Your task to perform on an android device: open a bookmark in the chrome app Image 0: 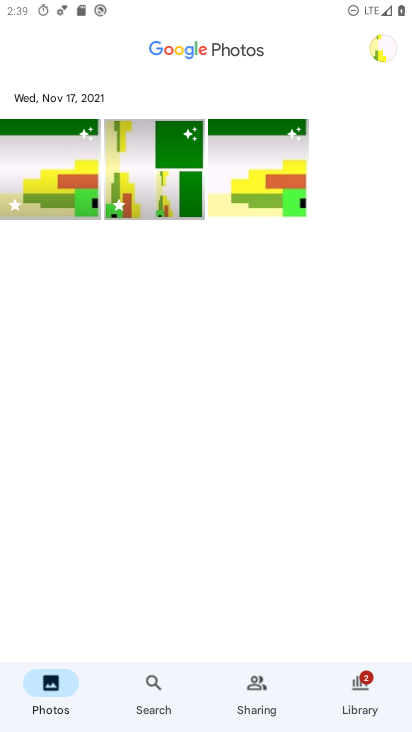
Step 0: drag from (227, 507) to (283, 145)
Your task to perform on an android device: open a bookmark in the chrome app Image 1: 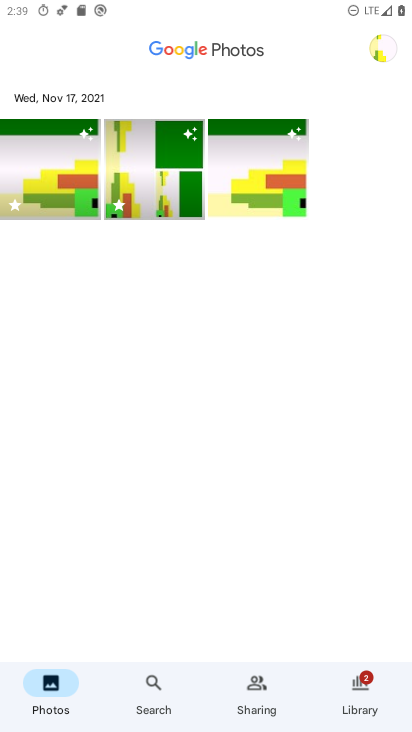
Step 1: press home button
Your task to perform on an android device: open a bookmark in the chrome app Image 2: 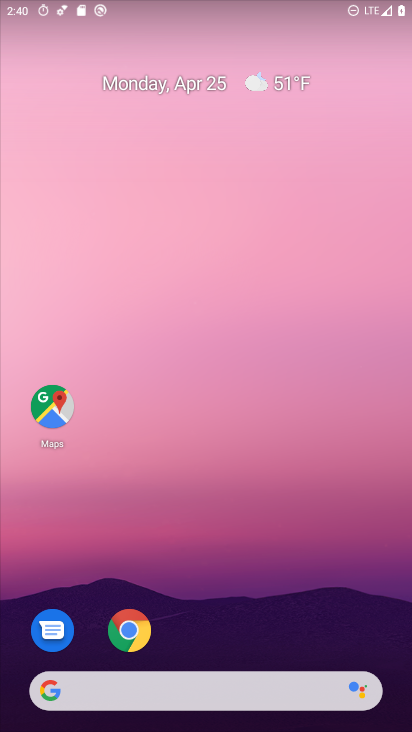
Step 2: drag from (189, 636) to (228, 239)
Your task to perform on an android device: open a bookmark in the chrome app Image 3: 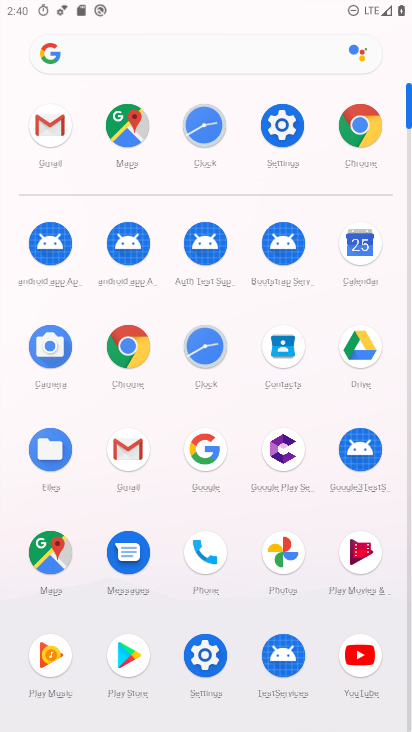
Step 3: click (116, 355)
Your task to perform on an android device: open a bookmark in the chrome app Image 4: 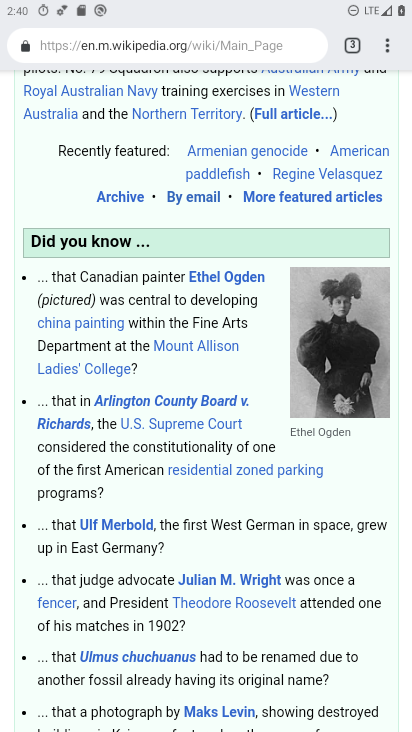
Step 4: drag from (246, 551) to (303, 73)
Your task to perform on an android device: open a bookmark in the chrome app Image 5: 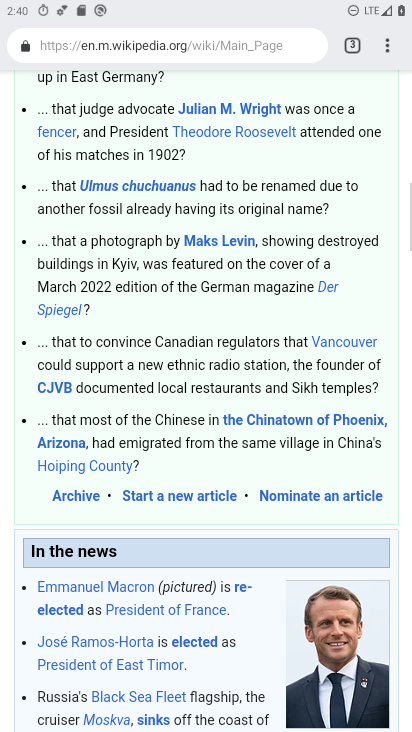
Step 5: drag from (288, 163) to (305, 723)
Your task to perform on an android device: open a bookmark in the chrome app Image 6: 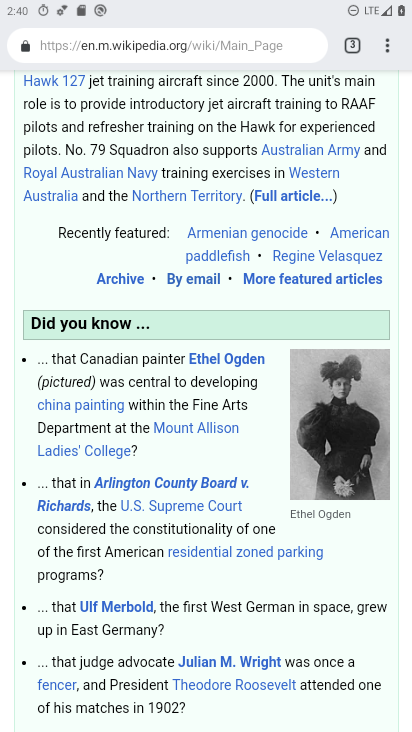
Step 6: click (387, 48)
Your task to perform on an android device: open a bookmark in the chrome app Image 7: 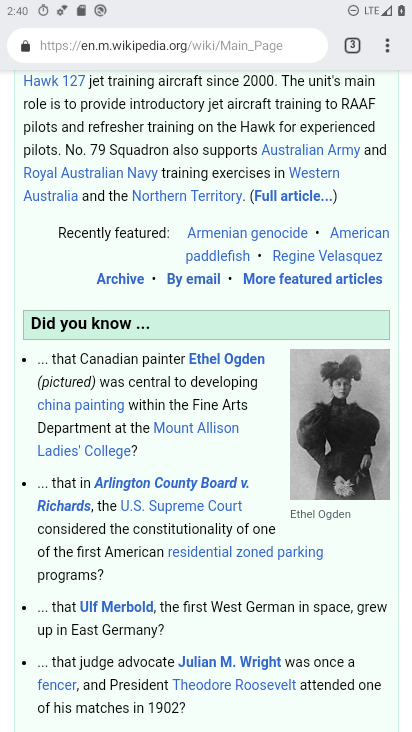
Step 7: task complete